Your task to perform on an android device: Is it going to rain this weekend? Image 0: 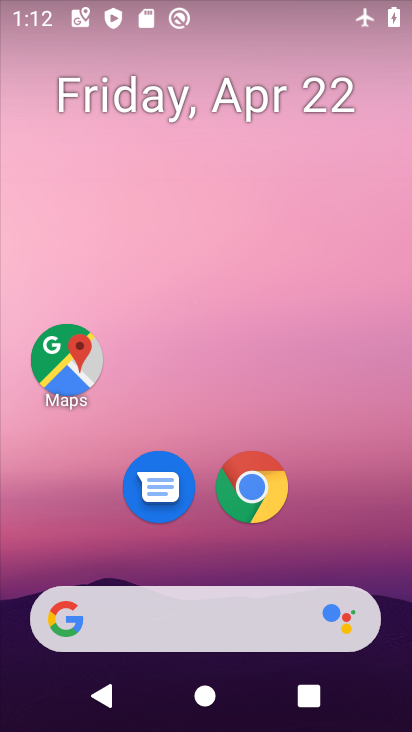
Step 0: drag from (354, 471) to (294, 0)
Your task to perform on an android device: Is it going to rain this weekend? Image 1: 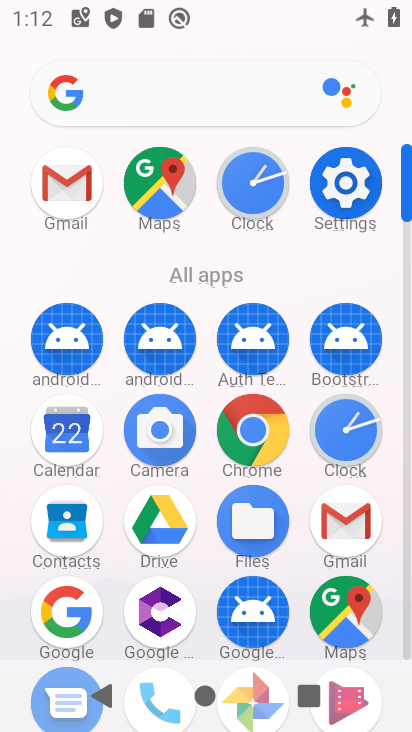
Step 1: click (67, 616)
Your task to perform on an android device: Is it going to rain this weekend? Image 2: 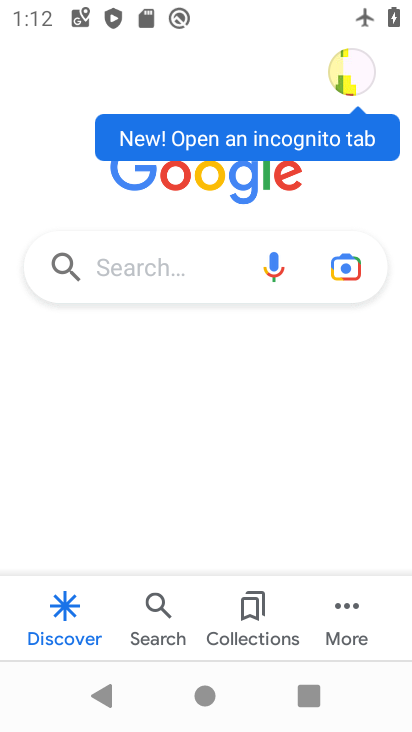
Step 2: click (182, 273)
Your task to perform on an android device: Is it going to rain this weekend? Image 3: 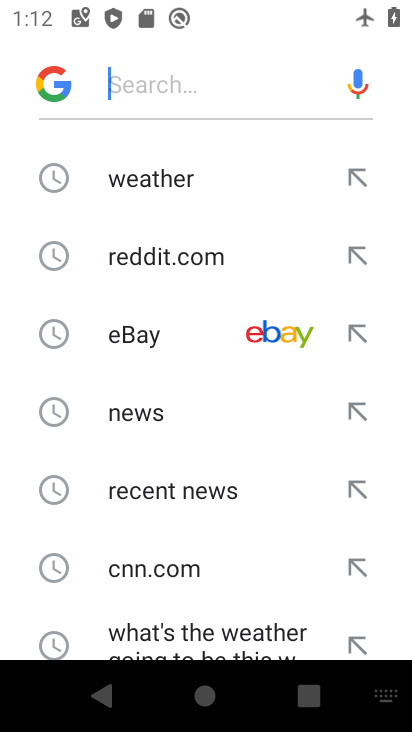
Step 3: drag from (230, 554) to (296, 362)
Your task to perform on an android device: Is it going to rain this weekend? Image 4: 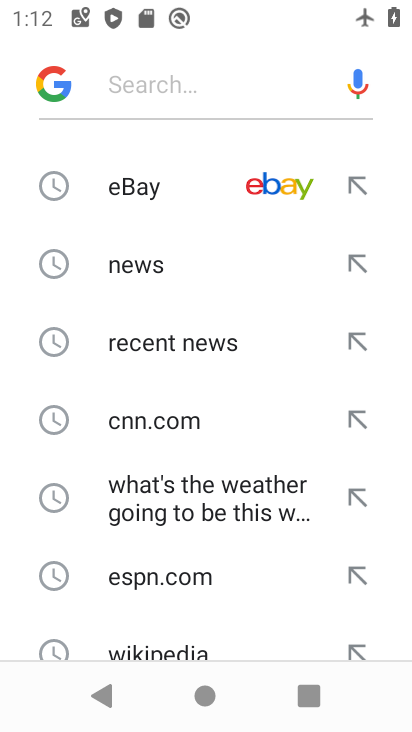
Step 4: drag from (201, 593) to (272, 415)
Your task to perform on an android device: Is it going to rain this weekend? Image 5: 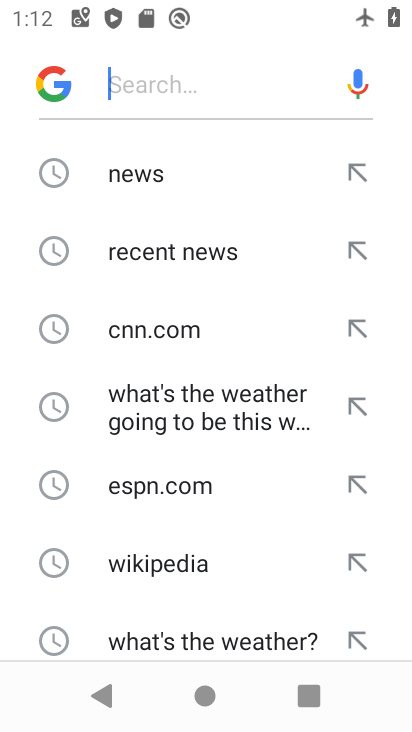
Step 5: drag from (220, 573) to (290, 395)
Your task to perform on an android device: Is it going to rain this weekend? Image 6: 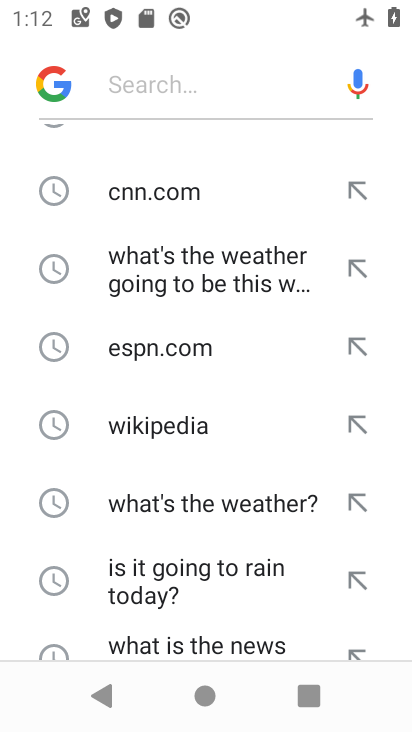
Step 6: drag from (228, 605) to (297, 403)
Your task to perform on an android device: Is it going to rain this weekend? Image 7: 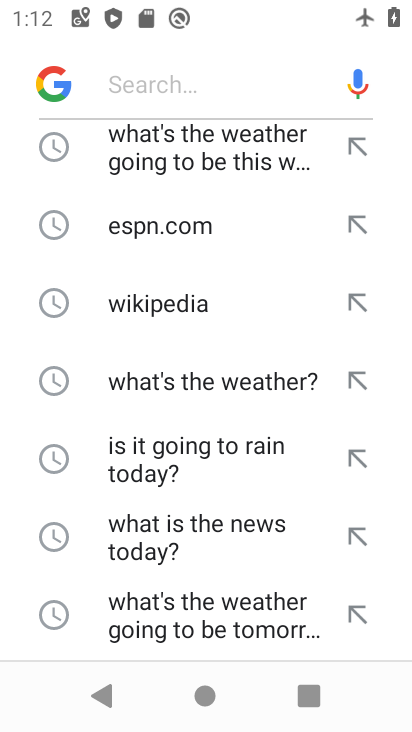
Step 7: drag from (230, 551) to (305, 315)
Your task to perform on an android device: Is it going to rain this weekend? Image 8: 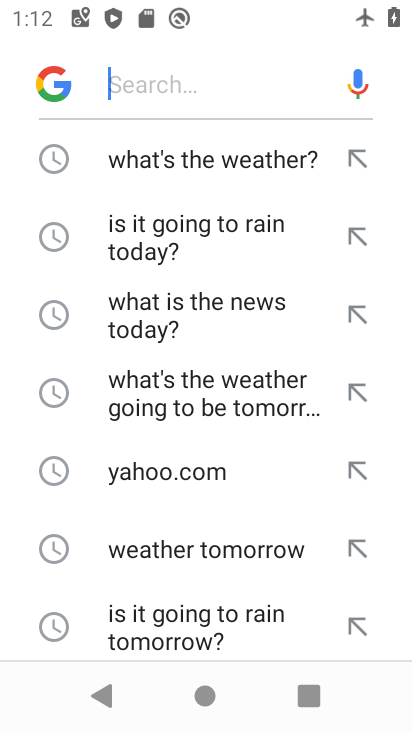
Step 8: drag from (207, 614) to (278, 419)
Your task to perform on an android device: Is it going to rain this weekend? Image 9: 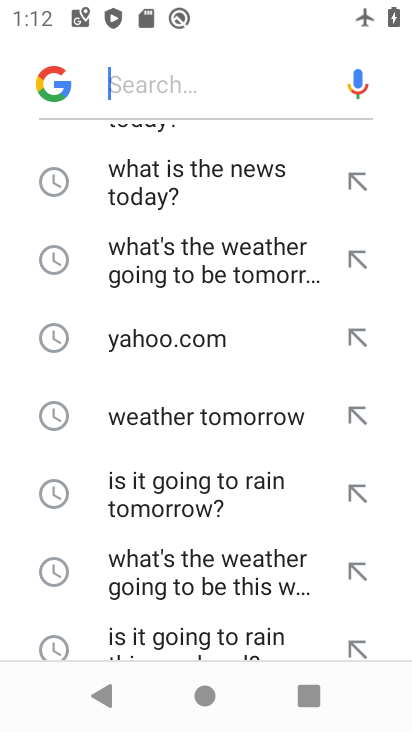
Step 9: drag from (192, 576) to (240, 476)
Your task to perform on an android device: Is it going to rain this weekend? Image 10: 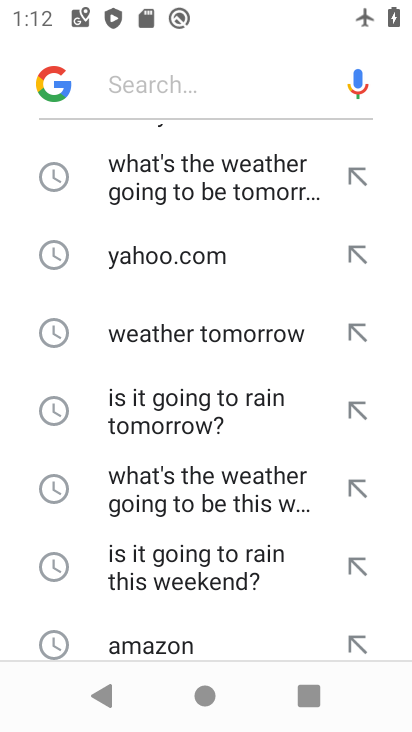
Step 10: click (215, 558)
Your task to perform on an android device: Is it going to rain this weekend? Image 11: 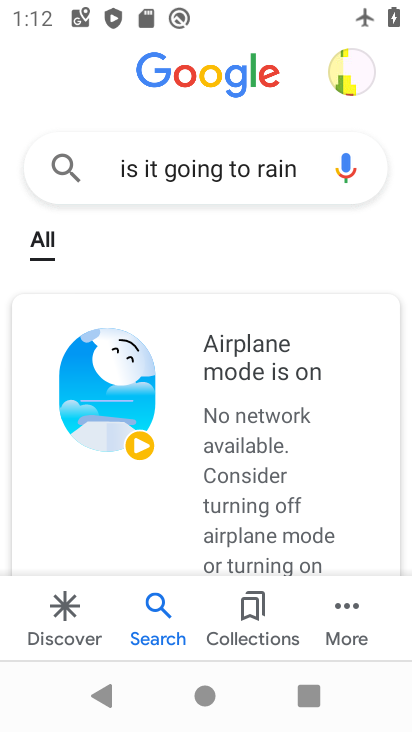
Step 11: task complete